Your task to perform on an android device: Go to eBay Image 0: 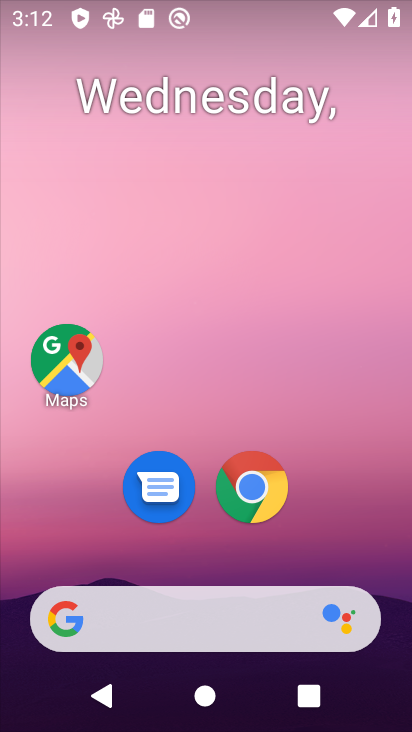
Step 0: drag from (365, 540) to (351, 220)
Your task to perform on an android device: Go to eBay Image 1: 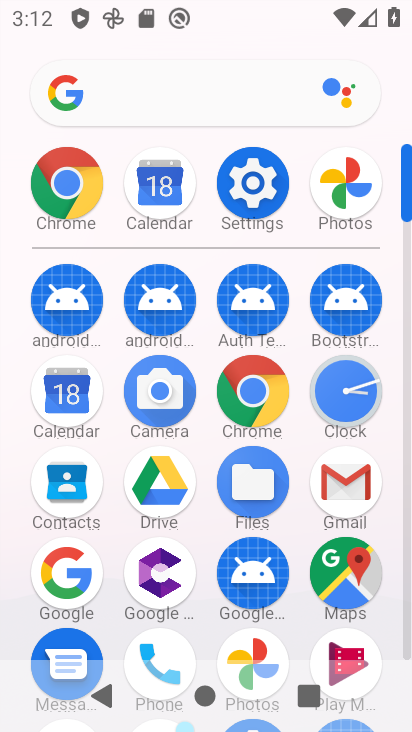
Step 1: click (271, 392)
Your task to perform on an android device: Go to eBay Image 2: 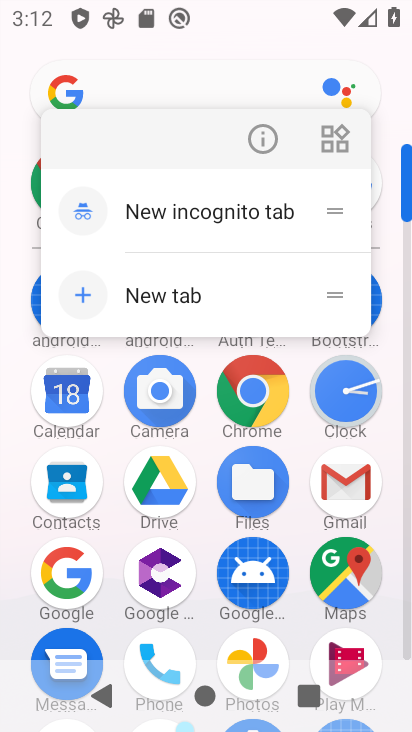
Step 2: click (245, 407)
Your task to perform on an android device: Go to eBay Image 3: 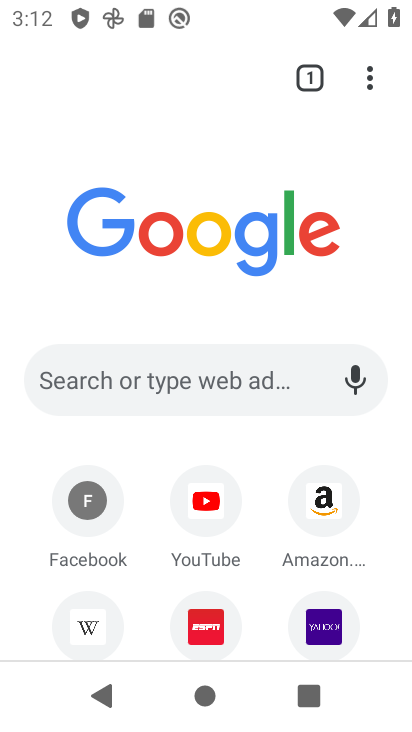
Step 3: drag from (249, 543) to (257, 397)
Your task to perform on an android device: Go to eBay Image 4: 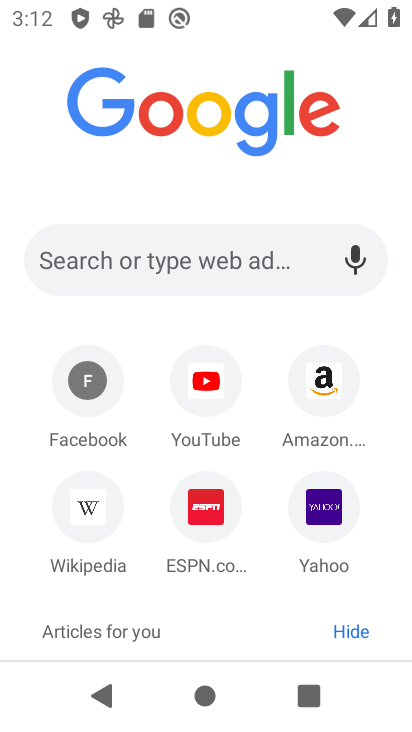
Step 4: click (201, 267)
Your task to perform on an android device: Go to eBay Image 5: 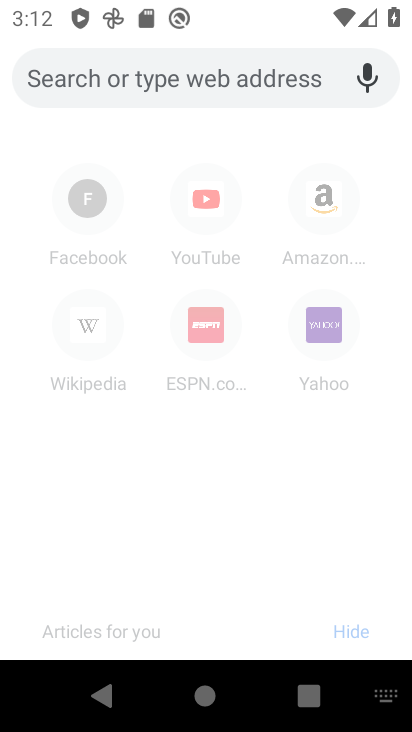
Step 5: type "ebay"
Your task to perform on an android device: Go to eBay Image 6: 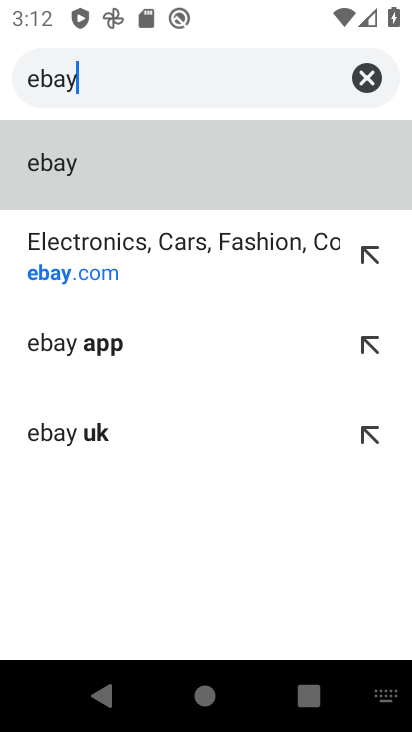
Step 6: click (109, 160)
Your task to perform on an android device: Go to eBay Image 7: 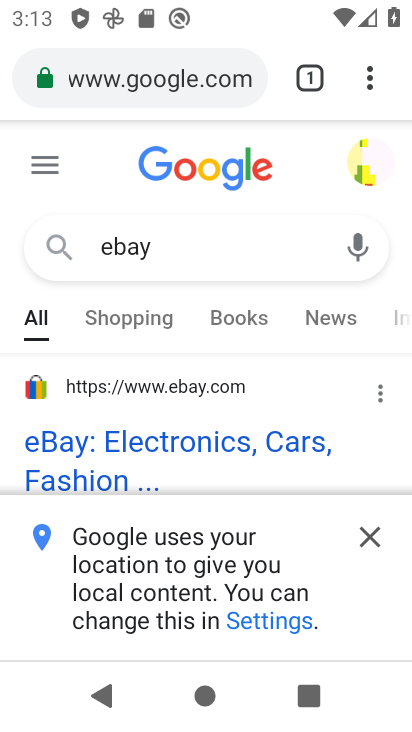
Step 7: task complete